Your task to perform on an android device: Find coffee shops on Maps Image 0: 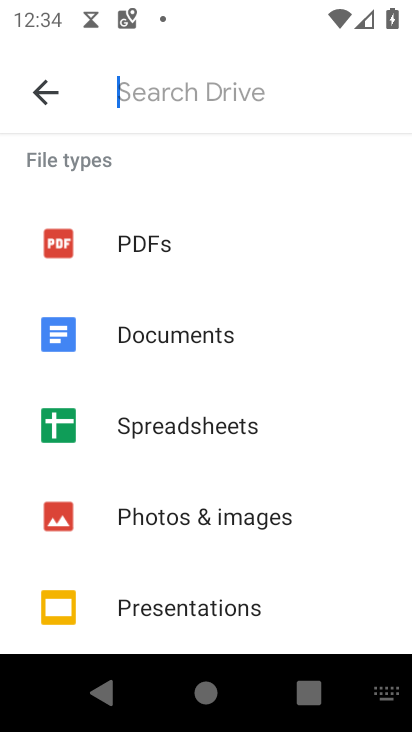
Step 0: press home button
Your task to perform on an android device: Find coffee shops on Maps Image 1: 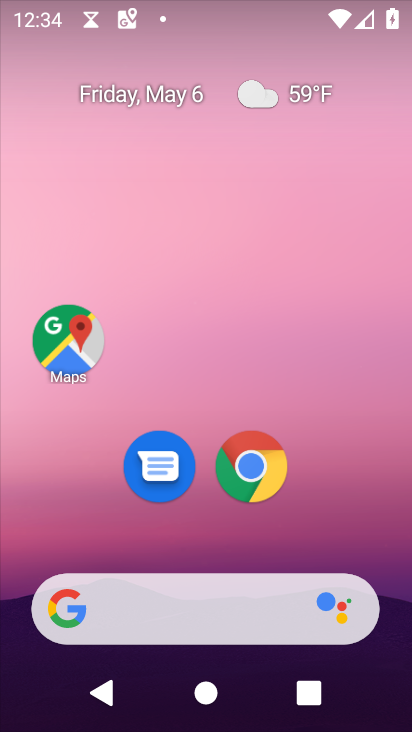
Step 1: click (75, 339)
Your task to perform on an android device: Find coffee shops on Maps Image 2: 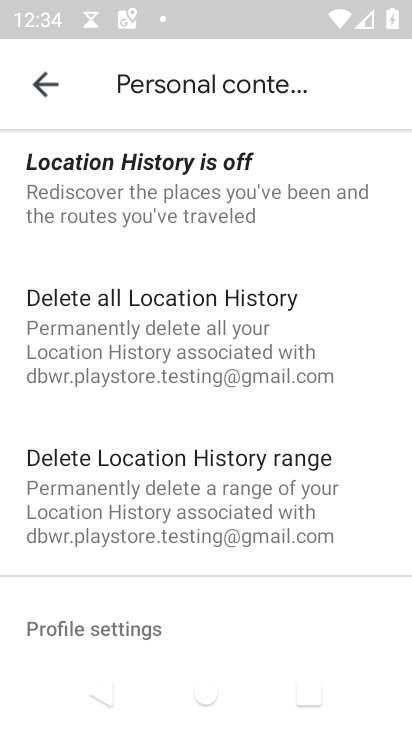
Step 2: click (43, 96)
Your task to perform on an android device: Find coffee shops on Maps Image 3: 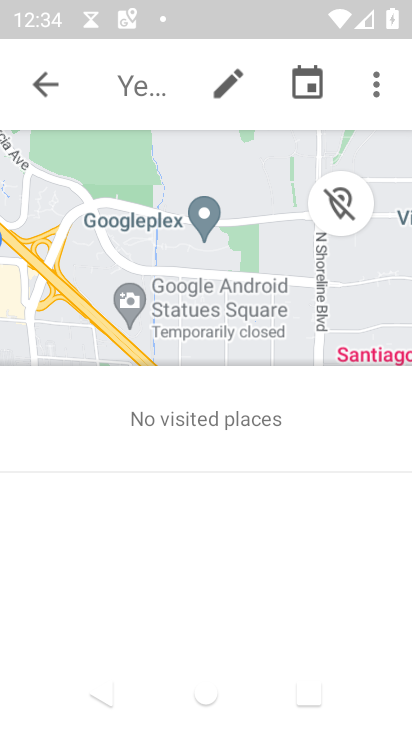
Step 3: click (43, 96)
Your task to perform on an android device: Find coffee shops on Maps Image 4: 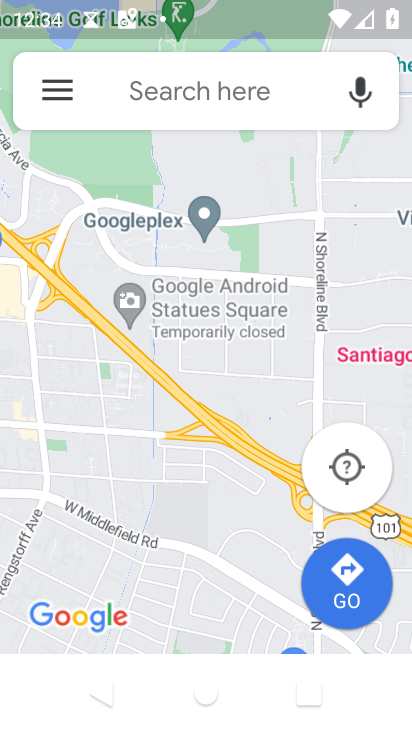
Step 4: click (161, 93)
Your task to perform on an android device: Find coffee shops on Maps Image 5: 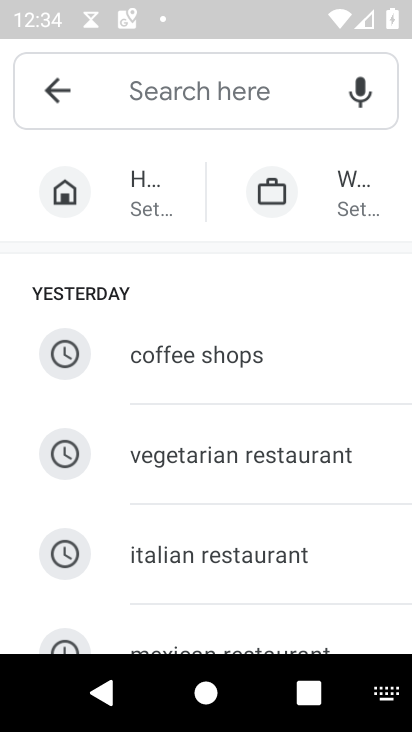
Step 5: click (267, 358)
Your task to perform on an android device: Find coffee shops on Maps Image 6: 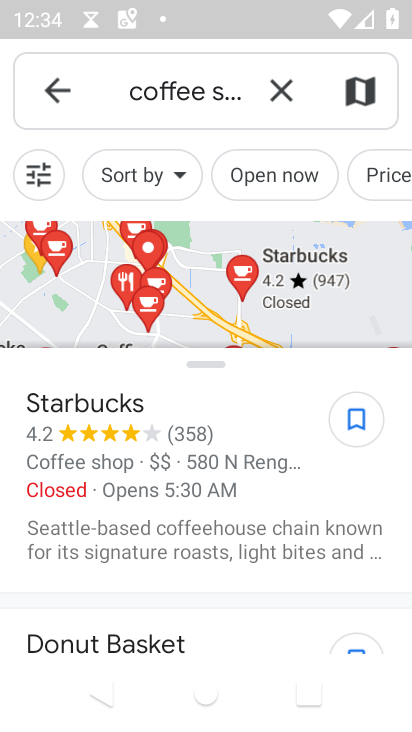
Step 6: task complete